Your task to perform on an android device: Play the last video I watched on Youtube Image 0: 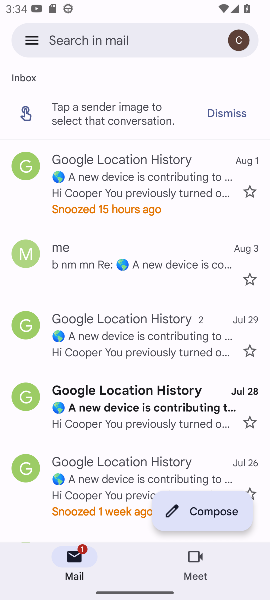
Step 0: press home button
Your task to perform on an android device: Play the last video I watched on Youtube Image 1: 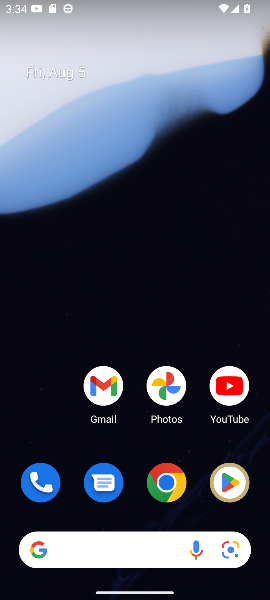
Step 1: click (225, 385)
Your task to perform on an android device: Play the last video I watched on Youtube Image 2: 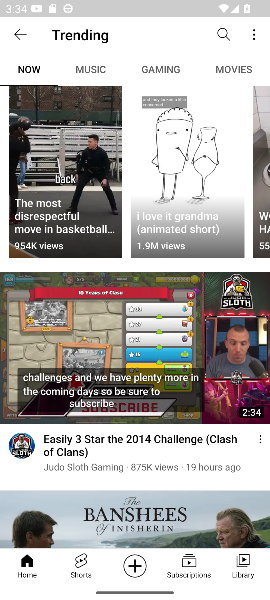
Step 2: click (18, 37)
Your task to perform on an android device: Play the last video I watched on Youtube Image 3: 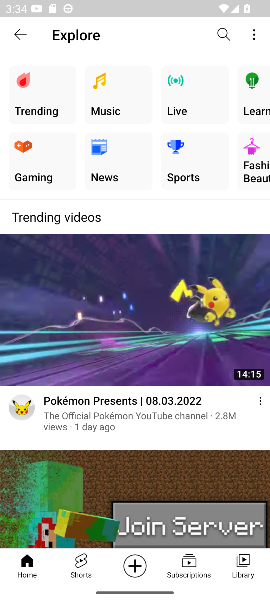
Step 3: click (244, 558)
Your task to perform on an android device: Play the last video I watched on Youtube Image 4: 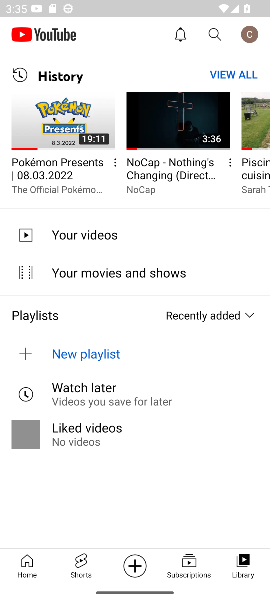
Step 4: click (37, 121)
Your task to perform on an android device: Play the last video I watched on Youtube Image 5: 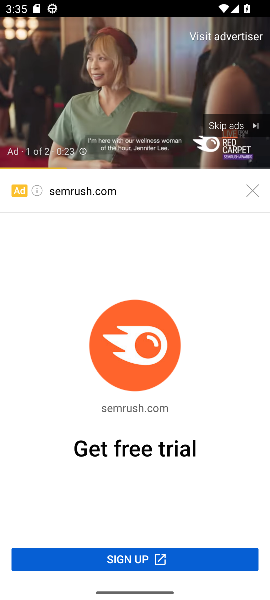
Step 5: click (240, 126)
Your task to perform on an android device: Play the last video I watched on Youtube Image 6: 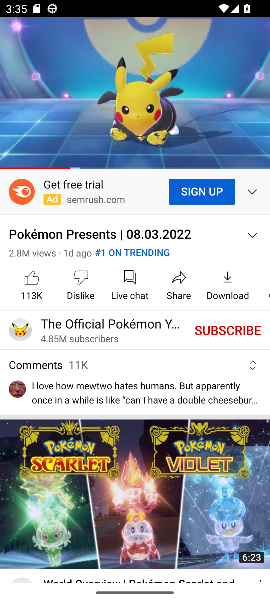
Step 6: task complete